Your task to perform on an android device: Go to notification settings Image 0: 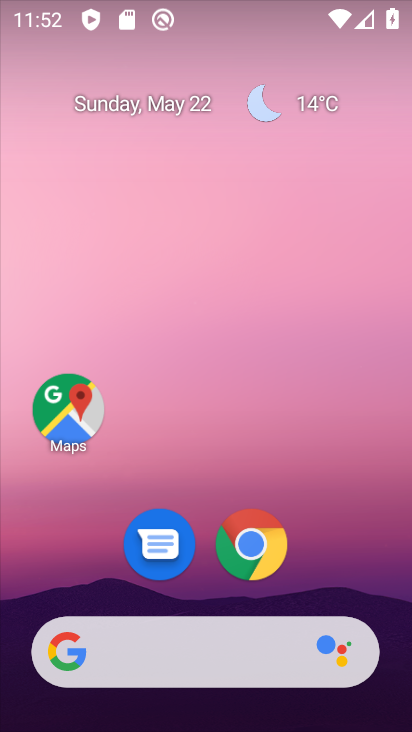
Step 0: drag from (303, 534) to (302, 156)
Your task to perform on an android device: Go to notification settings Image 1: 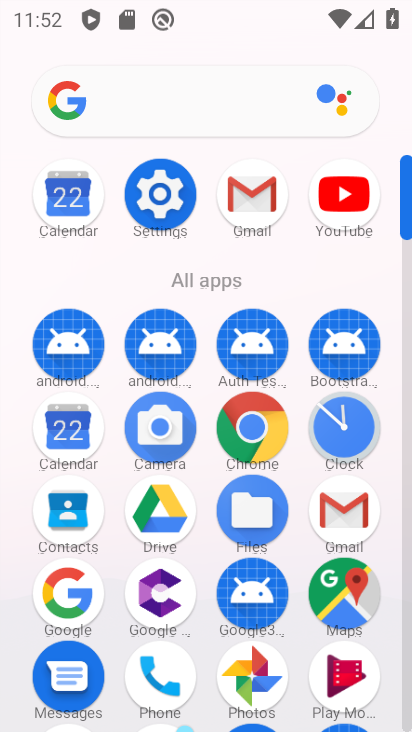
Step 1: click (169, 215)
Your task to perform on an android device: Go to notification settings Image 2: 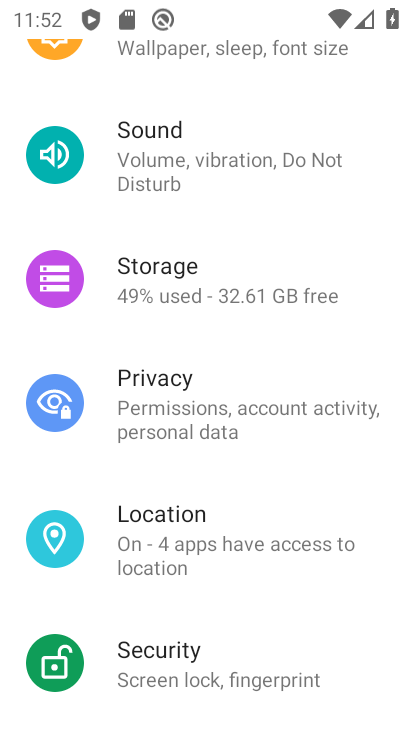
Step 2: drag from (225, 170) to (258, 626)
Your task to perform on an android device: Go to notification settings Image 3: 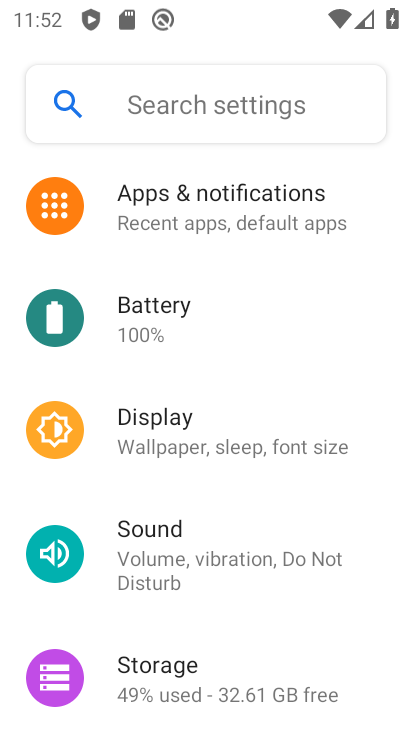
Step 3: click (261, 230)
Your task to perform on an android device: Go to notification settings Image 4: 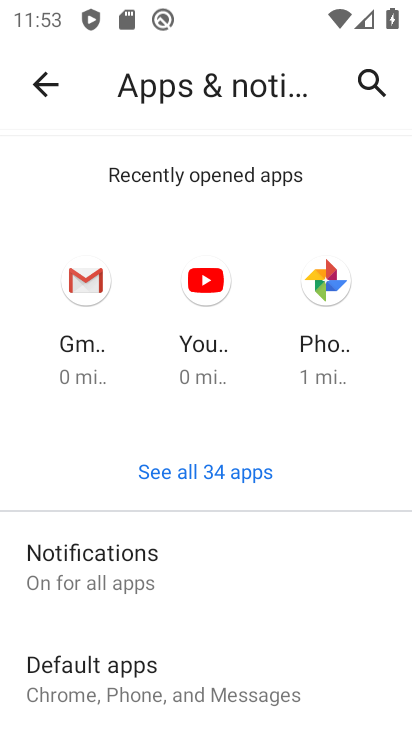
Step 4: click (146, 564)
Your task to perform on an android device: Go to notification settings Image 5: 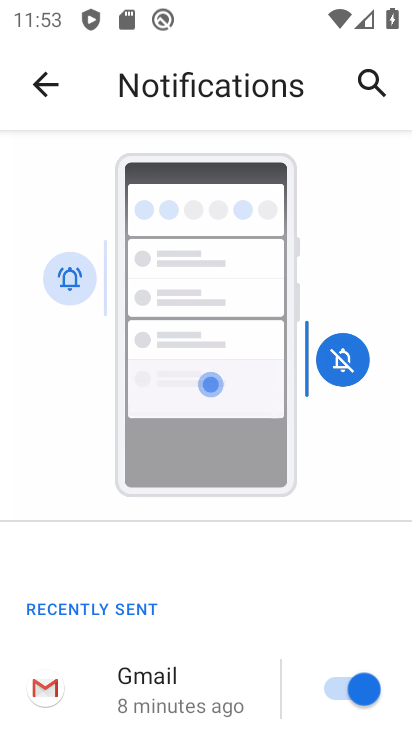
Step 5: task complete